Your task to perform on an android device: Go to CNN.com Image 0: 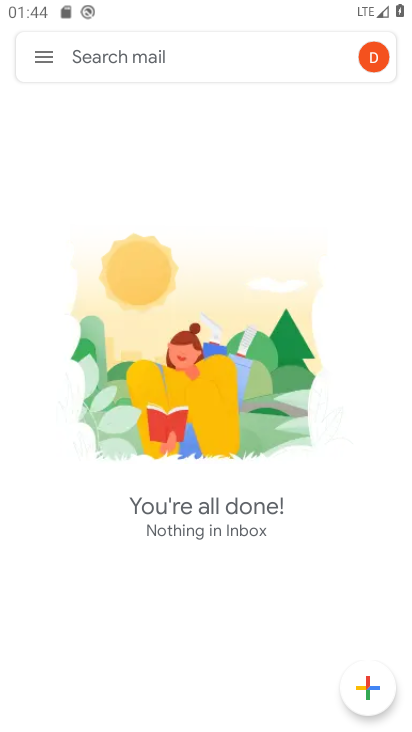
Step 0: press home button
Your task to perform on an android device: Go to CNN.com Image 1: 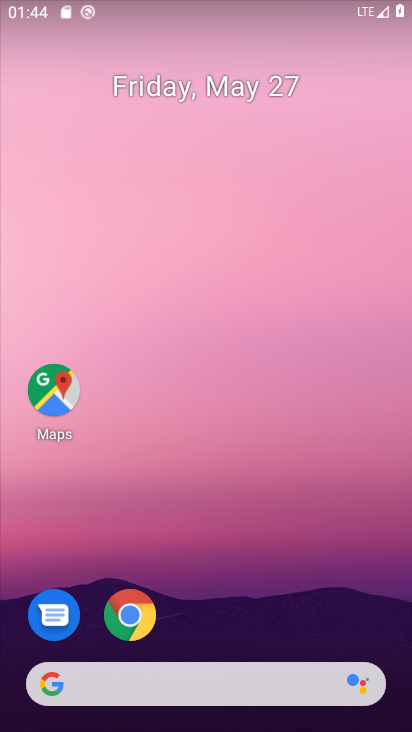
Step 1: drag from (364, 581) to (362, 139)
Your task to perform on an android device: Go to CNN.com Image 2: 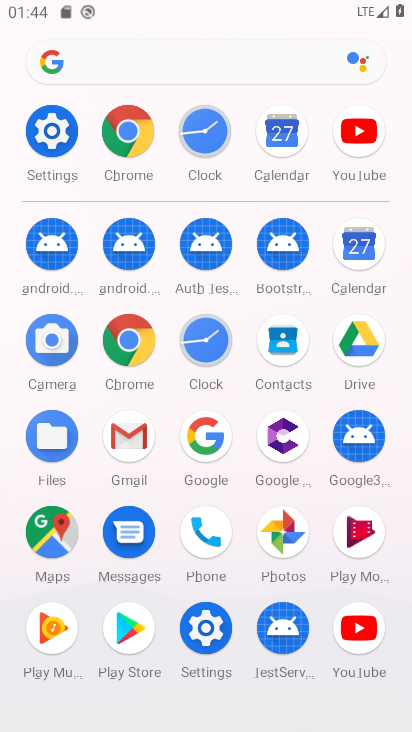
Step 2: click (135, 347)
Your task to perform on an android device: Go to CNN.com Image 3: 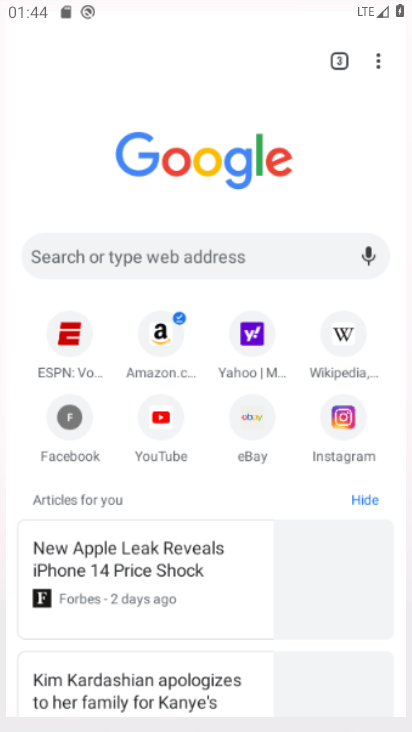
Step 3: click (134, 331)
Your task to perform on an android device: Go to CNN.com Image 4: 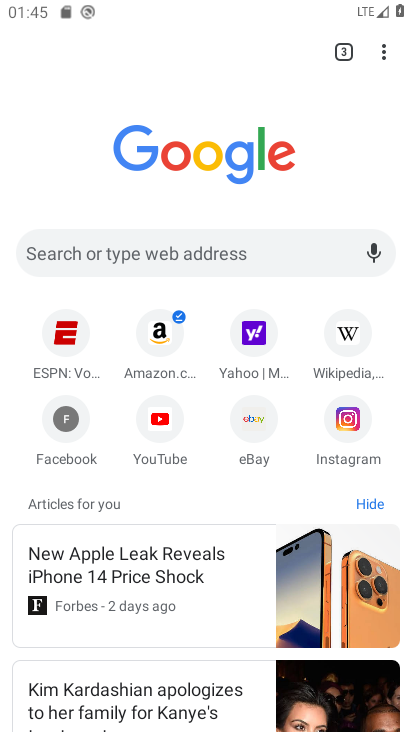
Step 4: click (211, 248)
Your task to perform on an android device: Go to CNN.com Image 5: 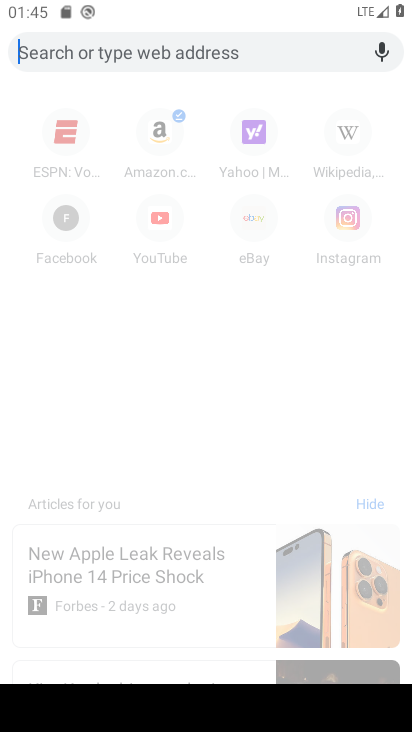
Step 5: type "cmm.v"
Your task to perform on an android device: Go to CNN.com Image 6: 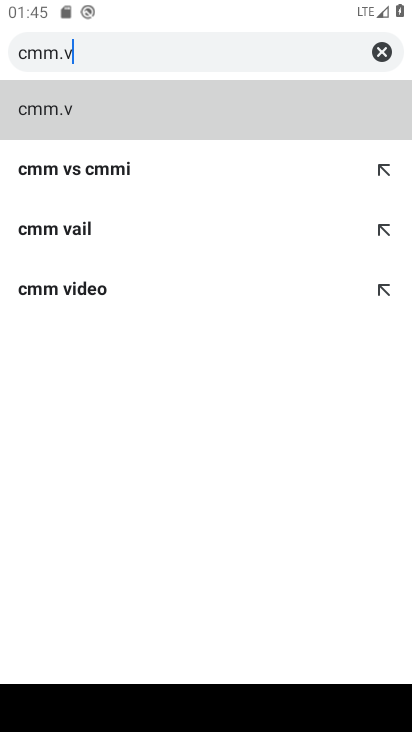
Step 6: click (380, 57)
Your task to perform on an android device: Go to CNN.com Image 7: 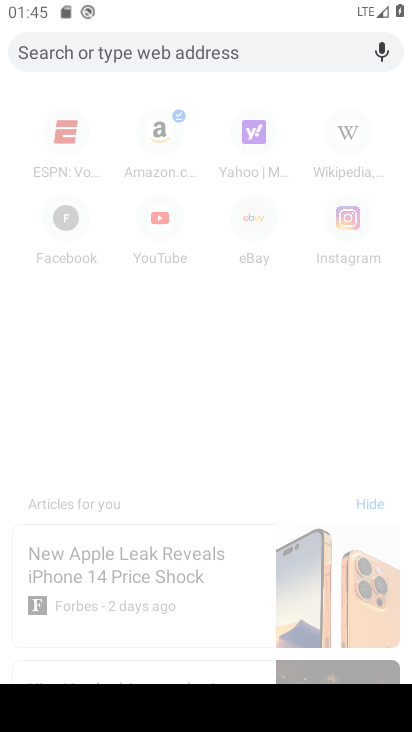
Step 7: type "cnn.com"
Your task to perform on an android device: Go to CNN.com Image 8: 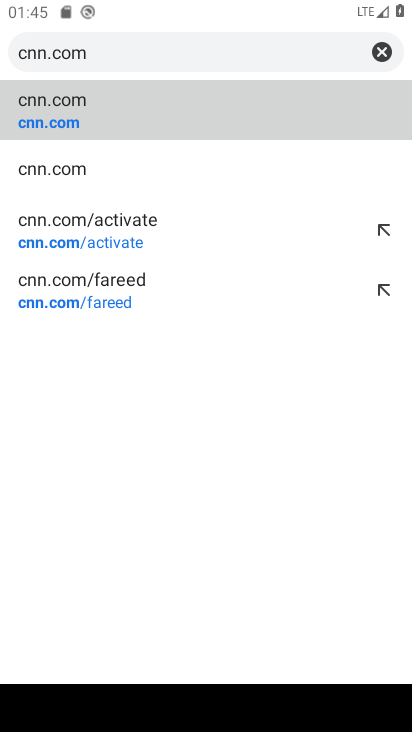
Step 8: click (81, 128)
Your task to perform on an android device: Go to CNN.com Image 9: 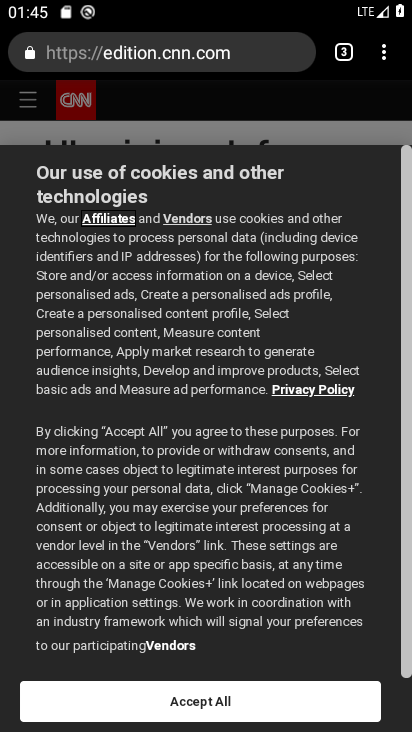
Step 9: task complete